Your task to perform on an android device: See recent photos Image 0: 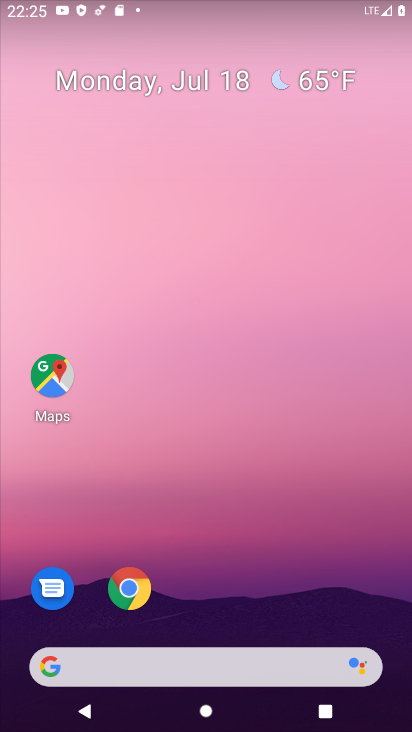
Step 0: press home button
Your task to perform on an android device: See recent photos Image 1: 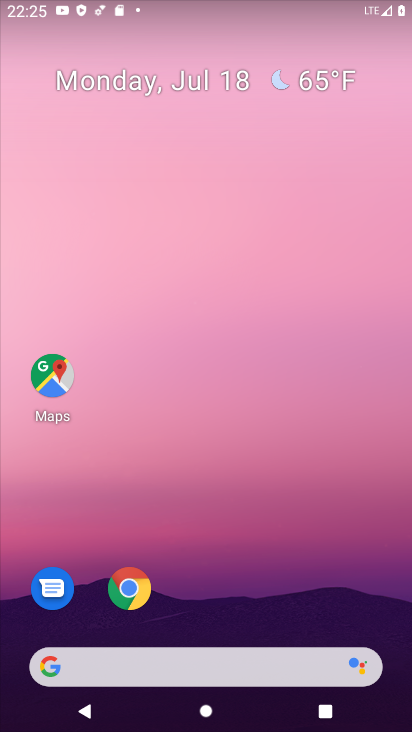
Step 1: press home button
Your task to perform on an android device: See recent photos Image 2: 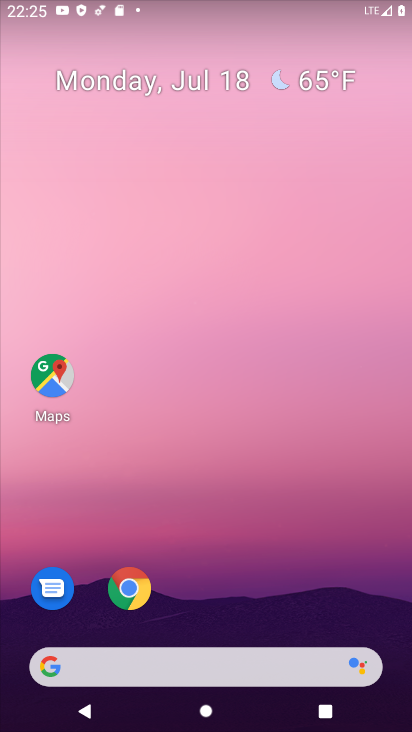
Step 2: drag from (258, 542) to (278, 149)
Your task to perform on an android device: See recent photos Image 3: 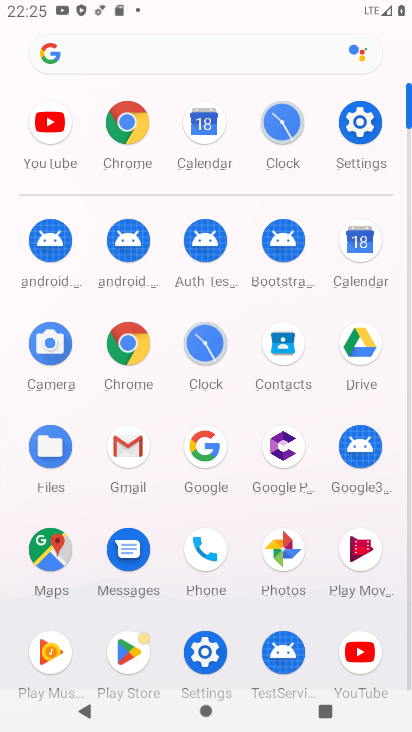
Step 3: click (284, 567)
Your task to perform on an android device: See recent photos Image 4: 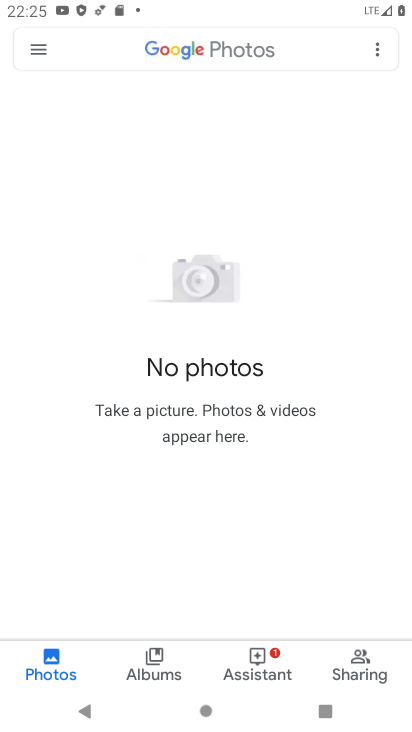
Step 4: task complete